Your task to perform on an android device: Open the Play Movies app and select the watchlist tab. Image 0: 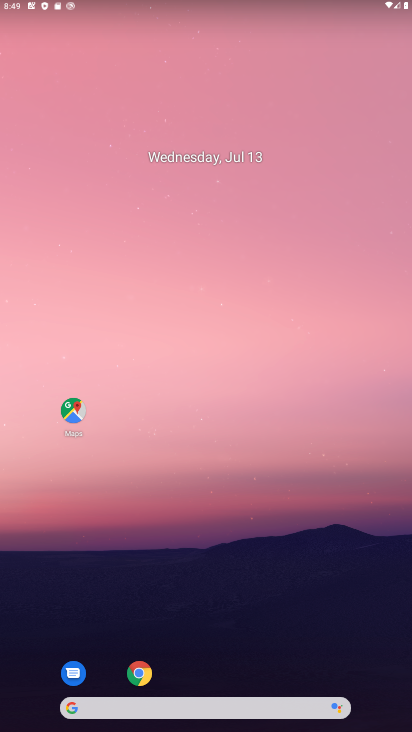
Step 0: drag from (293, 521) to (248, 162)
Your task to perform on an android device: Open the Play Movies app and select the watchlist tab. Image 1: 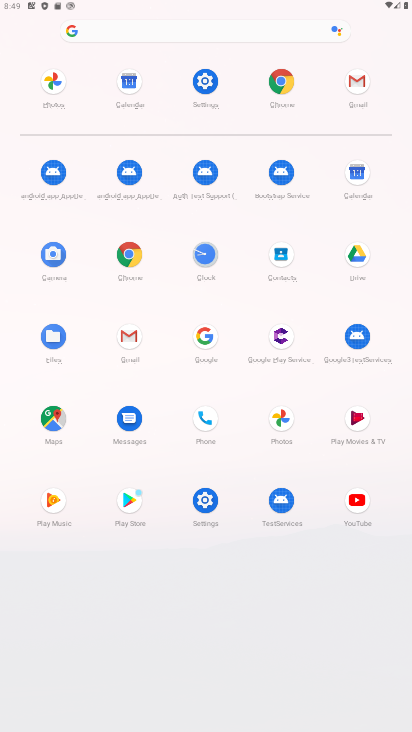
Step 1: click (360, 422)
Your task to perform on an android device: Open the Play Movies app and select the watchlist tab. Image 2: 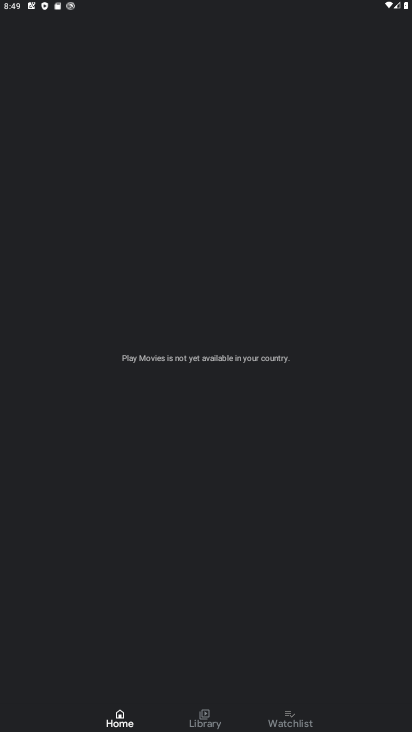
Step 2: click (295, 720)
Your task to perform on an android device: Open the Play Movies app and select the watchlist tab. Image 3: 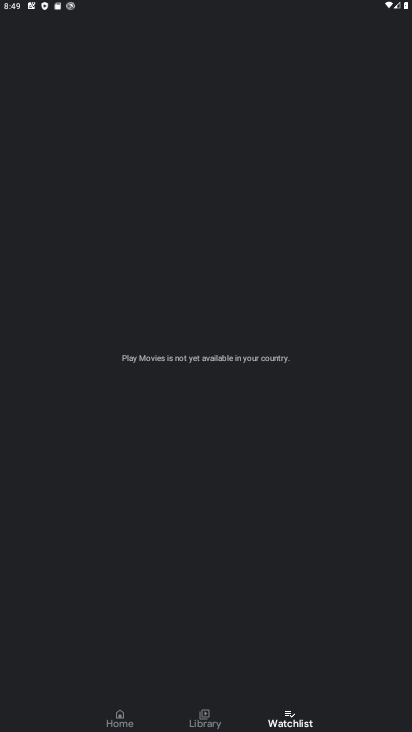
Step 3: task complete